Your task to perform on an android device: Open my contact list Image 0: 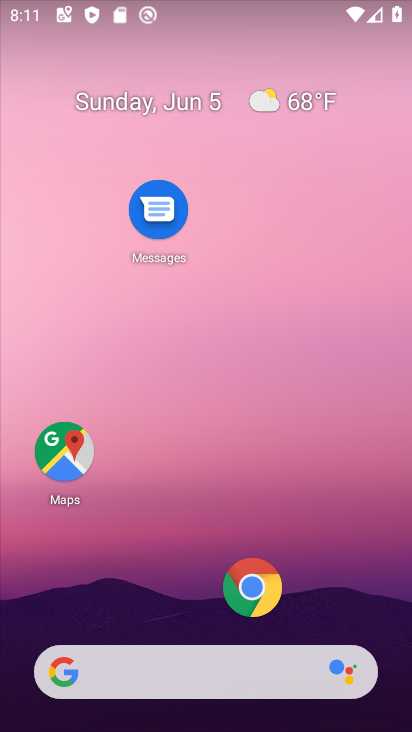
Step 0: drag from (310, 624) to (339, 80)
Your task to perform on an android device: Open my contact list Image 1: 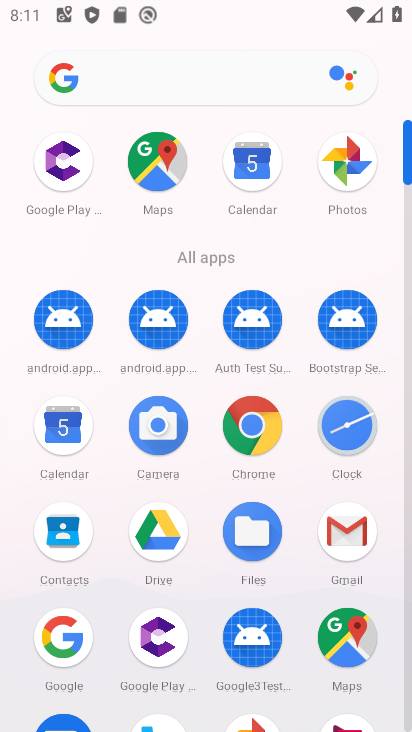
Step 1: click (58, 524)
Your task to perform on an android device: Open my contact list Image 2: 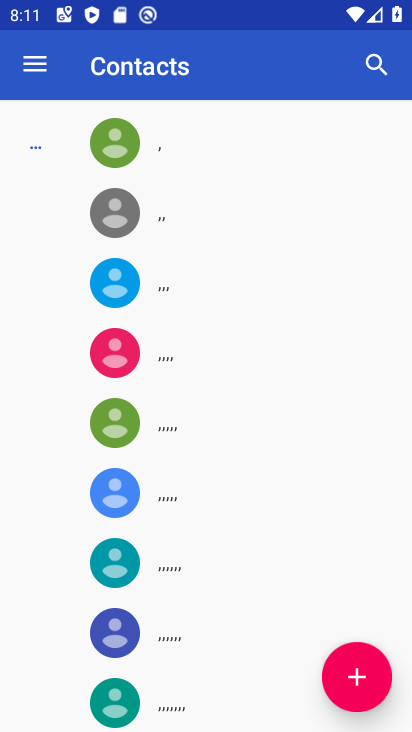
Step 2: task complete